Your task to perform on an android device: change text size in settings app Image 0: 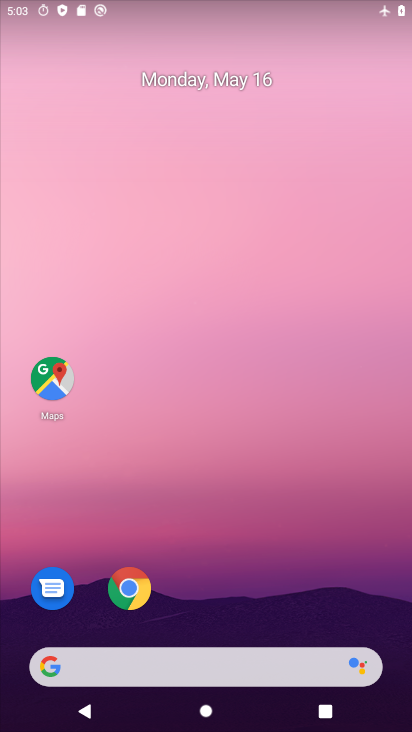
Step 0: drag from (223, 604) to (191, 139)
Your task to perform on an android device: change text size in settings app Image 1: 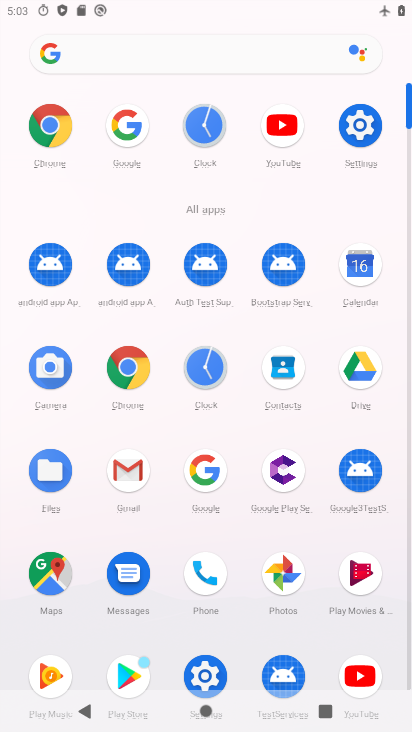
Step 1: click (371, 139)
Your task to perform on an android device: change text size in settings app Image 2: 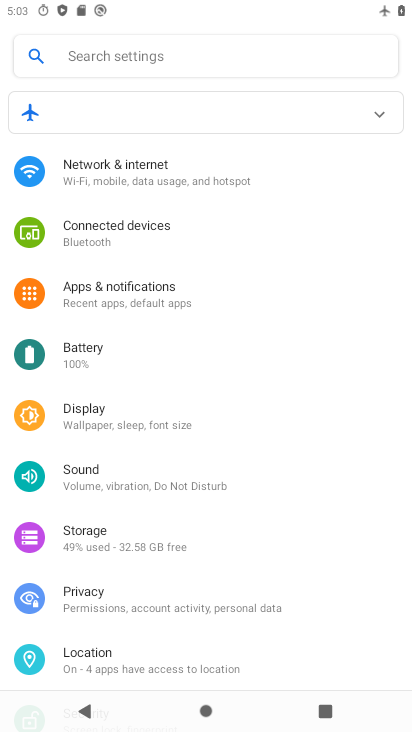
Step 2: drag from (174, 661) to (185, 531)
Your task to perform on an android device: change text size in settings app Image 3: 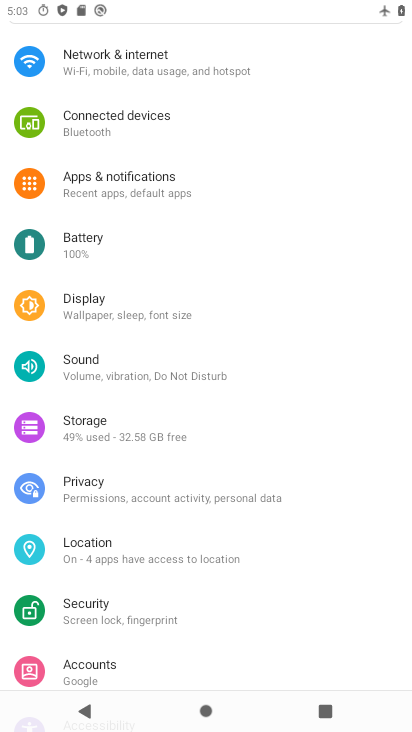
Step 3: click (182, 302)
Your task to perform on an android device: change text size in settings app Image 4: 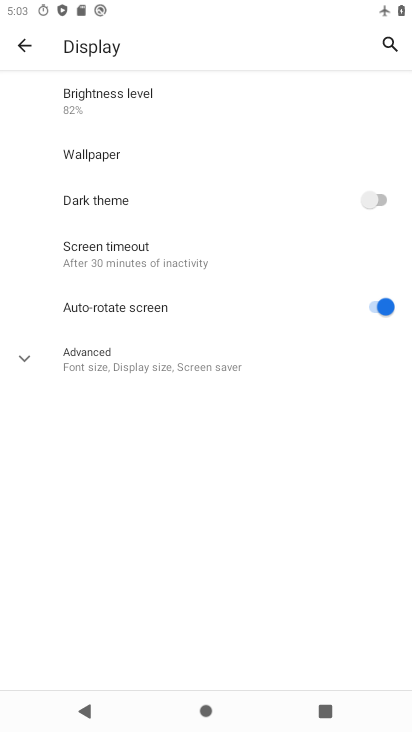
Step 4: click (193, 348)
Your task to perform on an android device: change text size in settings app Image 5: 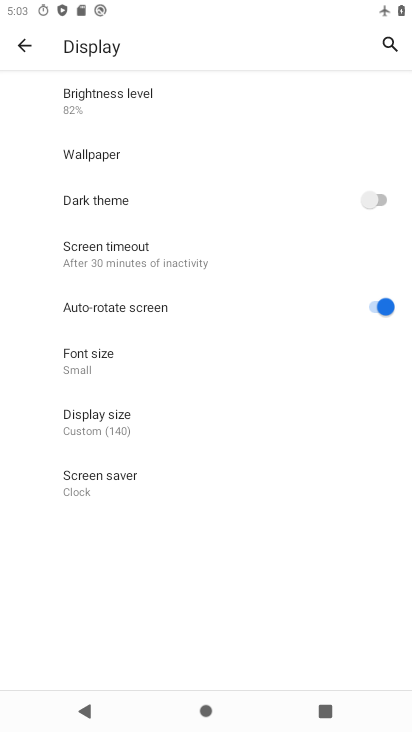
Step 5: click (193, 348)
Your task to perform on an android device: change text size in settings app Image 6: 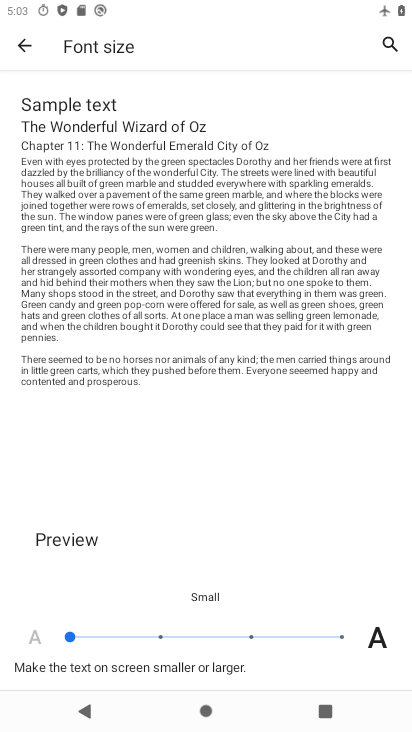
Step 6: click (180, 634)
Your task to perform on an android device: change text size in settings app Image 7: 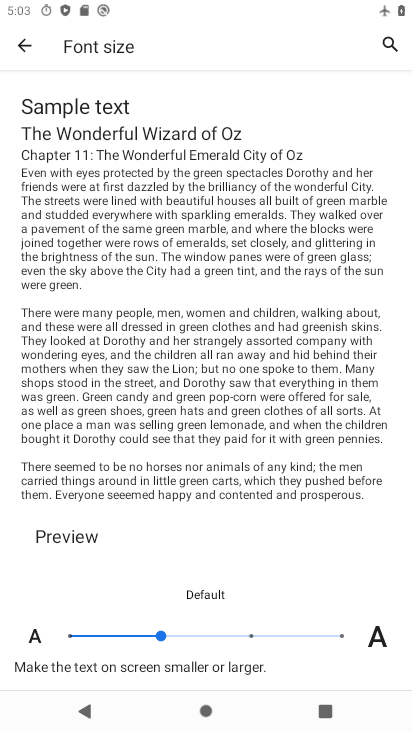
Step 7: task complete